Your task to perform on an android device: empty trash in the gmail app Image 0: 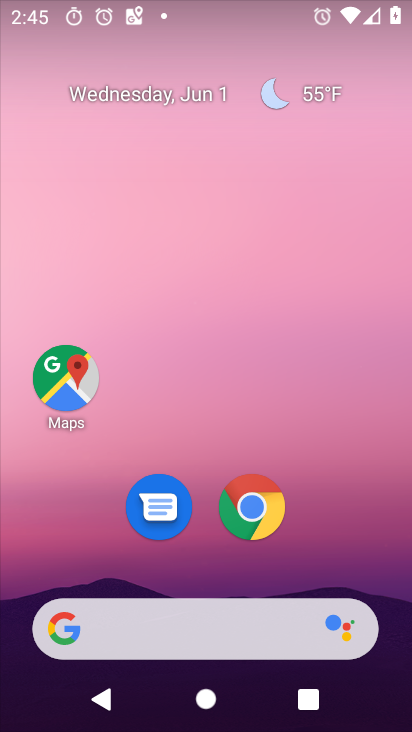
Step 0: drag from (379, 591) to (297, 714)
Your task to perform on an android device: empty trash in the gmail app Image 1: 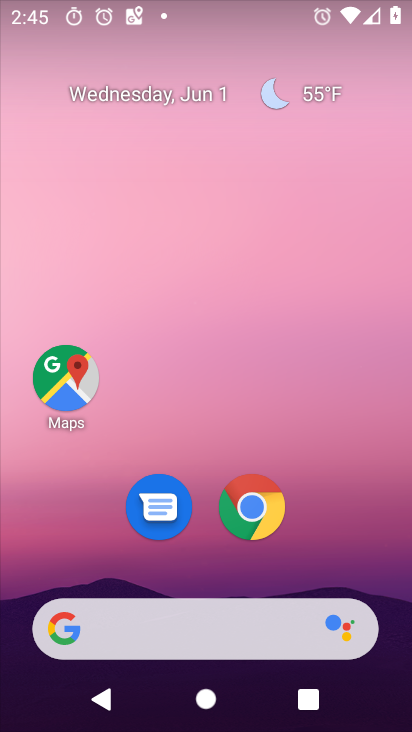
Step 1: drag from (347, 564) to (369, 0)
Your task to perform on an android device: empty trash in the gmail app Image 2: 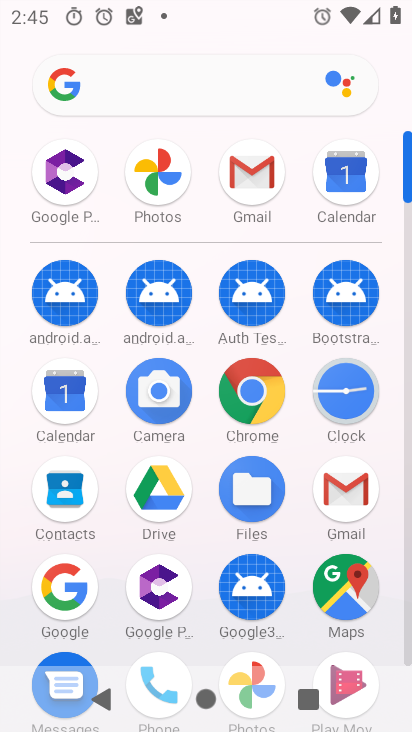
Step 2: click (253, 167)
Your task to perform on an android device: empty trash in the gmail app Image 3: 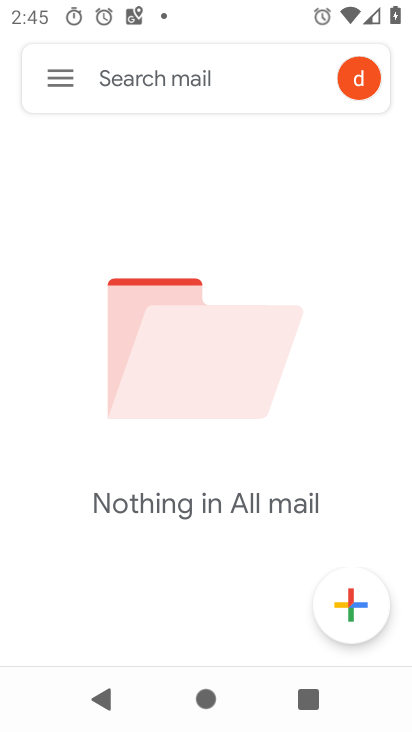
Step 3: click (62, 79)
Your task to perform on an android device: empty trash in the gmail app Image 4: 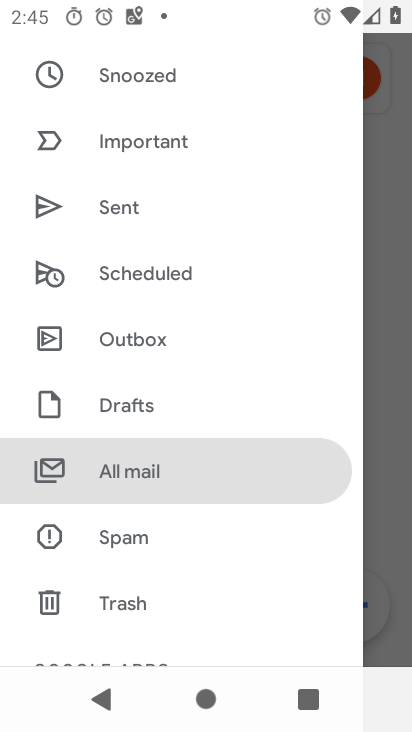
Step 4: click (121, 603)
Your task to perform on an android device: empty trash in the gmail app Image 5: 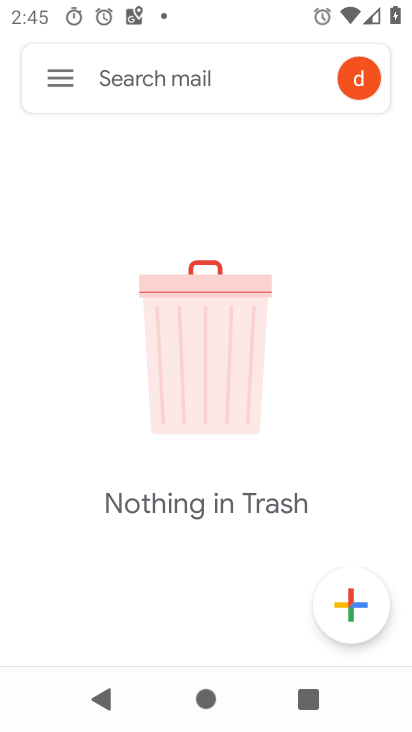
Step 5: task complete